Your task to perform on an android device: change the clock display to digital Image 0: 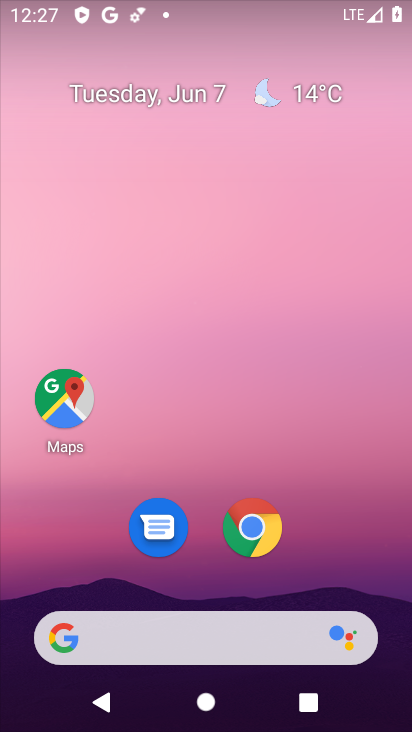
Step 0: drag from (304, 561) to (242, 23)
Your task to perform on an android device: change the clock display to digital Image 1: 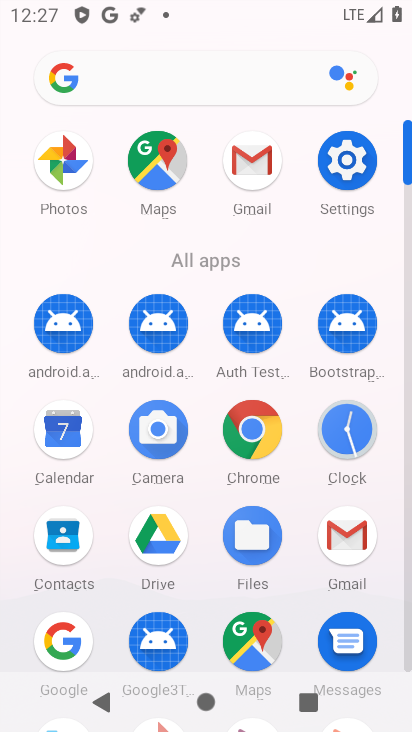
Step 1: drag from (18, 565) to (21, 232)
Your task to perform on an android device: change the clock display to digital Image 2: 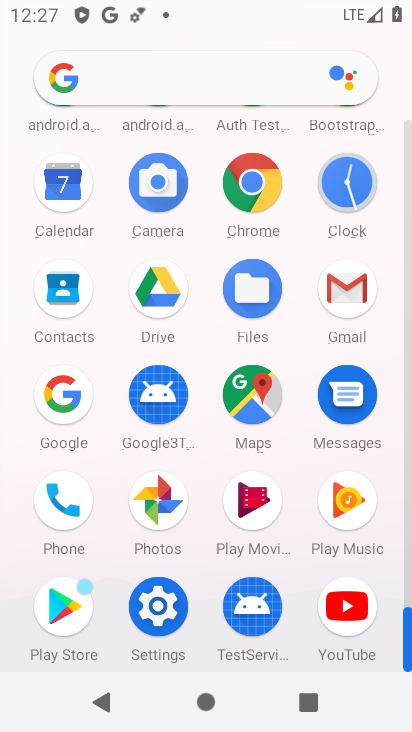
Step 2: click (350, 177)
Your task to perform on an android device: change the clock display to digital Image 3: 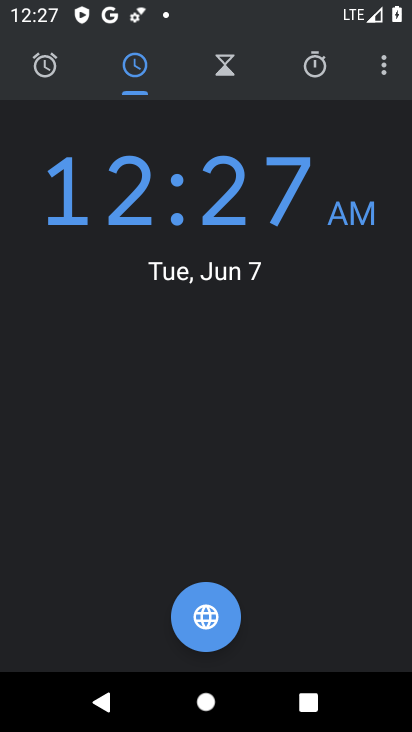
Step 3: task complete